Your task to perform on an android device: turn off notifications settings in the gmail app Image 0: 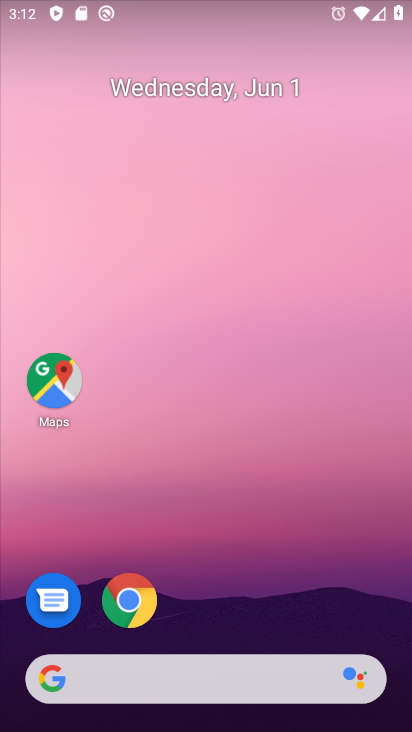
Step 0: drag from (201, 597) to (258, 167)
Your task to perform on an android device: turn off notifications settings in the gmail app Image 1: 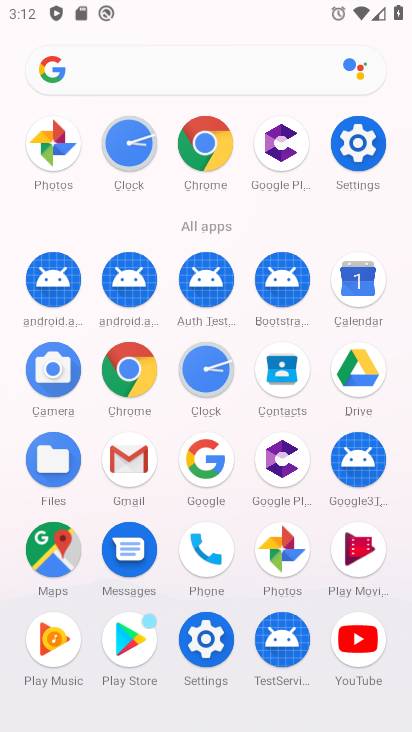
Step 1: click (126, 469)
Your task to perform on an android device: turn off notifications settings in the gmail app Image 2: 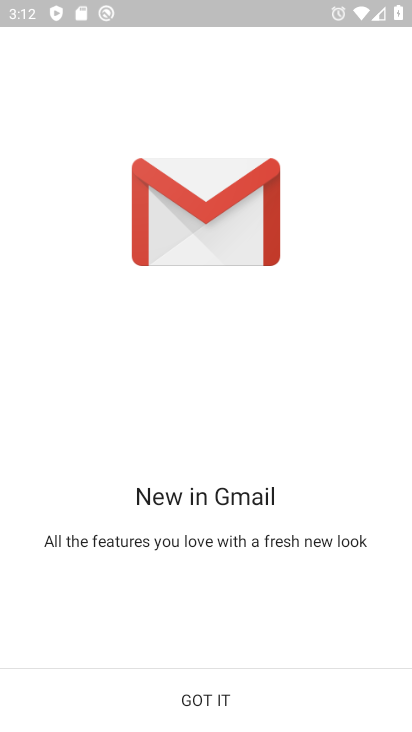
Step 2: click (208, 692)
Your task to perform on an android device: turn off notifications settings in the gmail app Image 3: 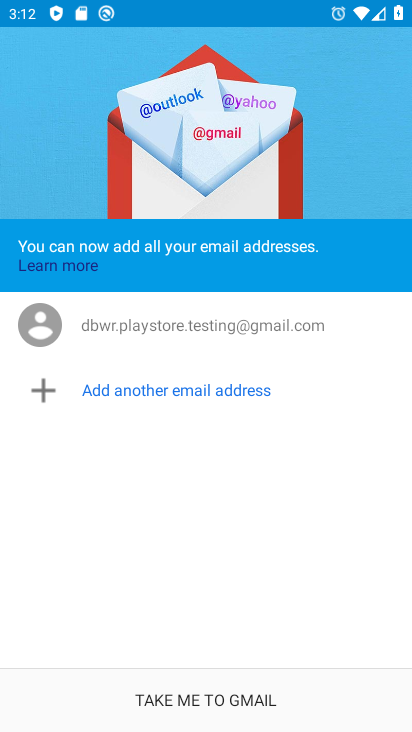
Step 3: click (208, 692)
Your task to perform on an android device: turn off notifications settings in the gmail app Image 4: 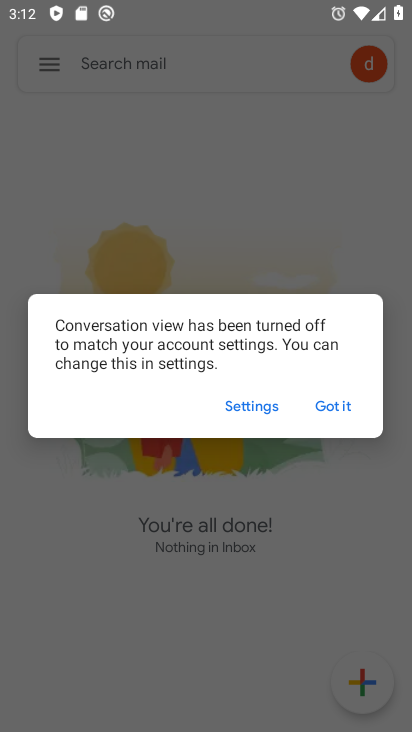
Step 4: click (342, 411)
Your task to perform on an android device: turn off notifications settings in the gmail app Image 5: 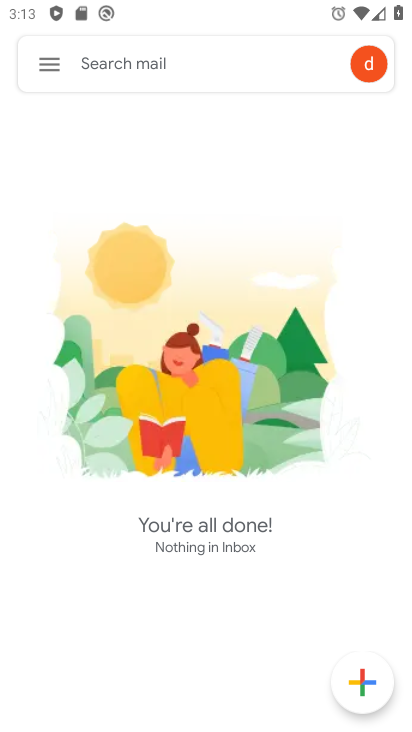
Step 5: click (38, 67)
Your task to perform on an android device: turn off notifications settings in the gmail app Image 6: 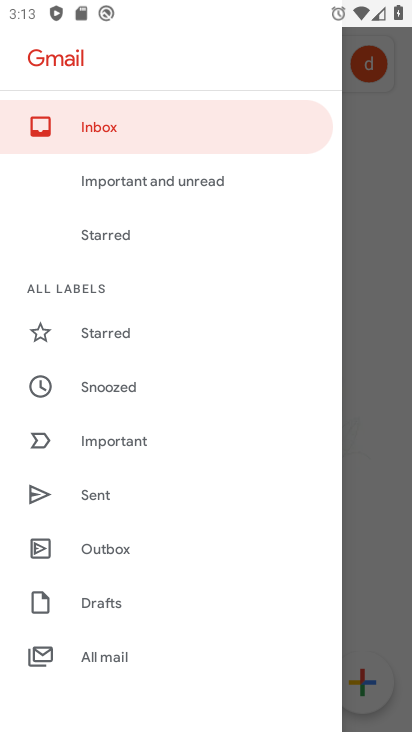
Step 6: drag from (137, 659) to (190, 287)
Your task to perform on an android device: turn off notifications settings in the gmail app Image 7: 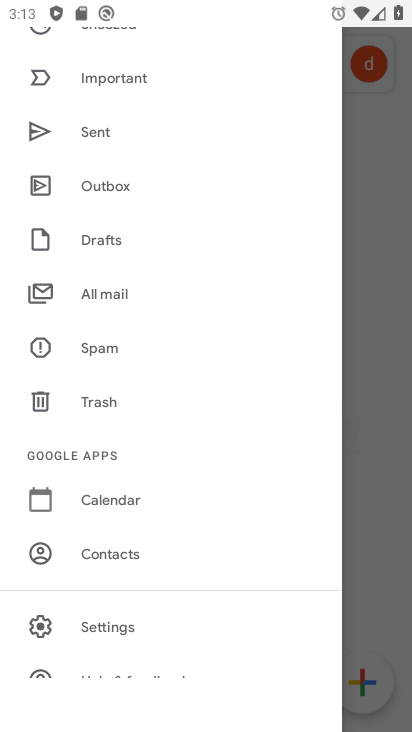
Step 7: click (123, 625)
Your task to perform on an android device: turn off notifications settings in the gmail app Image 8: 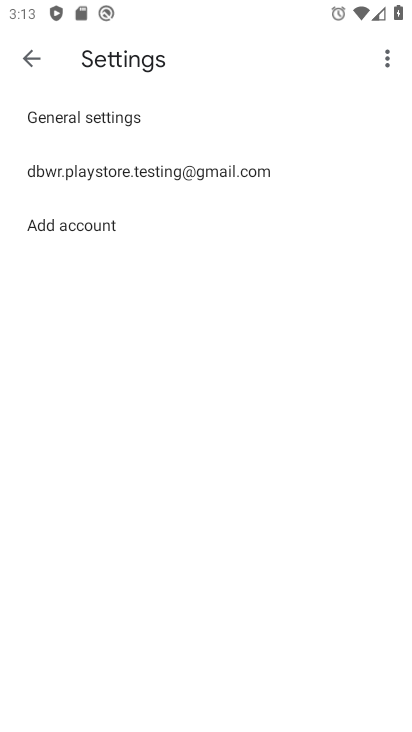
Step 8: click (143, 173)
Your task to perform on an android device: turn off notifications settings in the gmail app Image 9: 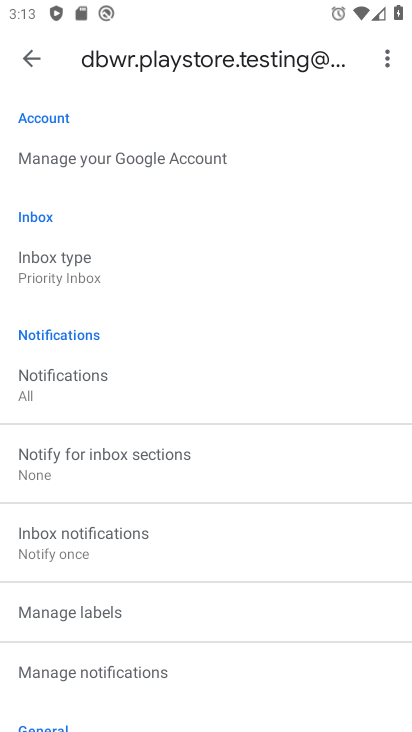
Step 9: drag from (181, 636) to (282, 319)
Your task to perform on an android device: turn off notifications settings in the gmail app Image 10: 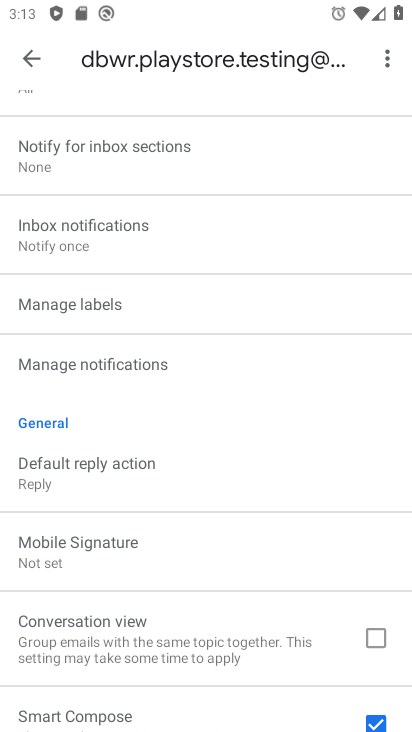
Step 10: click (121, 369)
Your task to perform on an android device: turn off notifications settings in the gmail app Image 11: 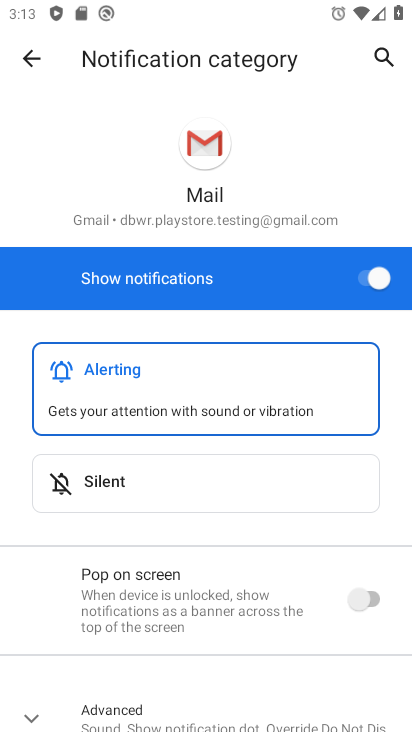
Step 11: click (353, 280)
Your task to perform on an android device: turn off notifications settings in the gmail app Image 12: 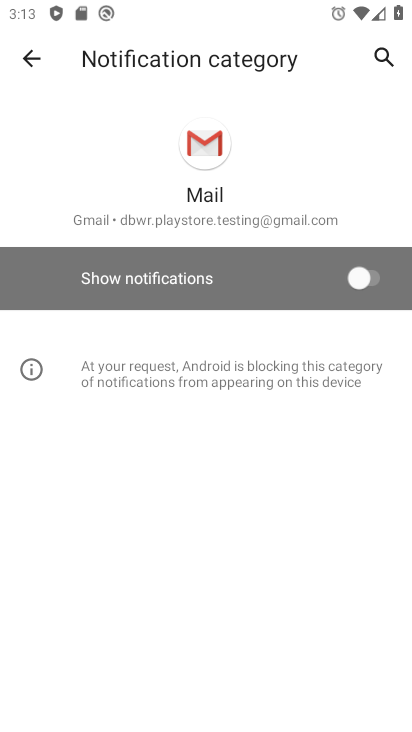
Step 12: task complete